Your task to perform on an android device: Open settings Image 0: 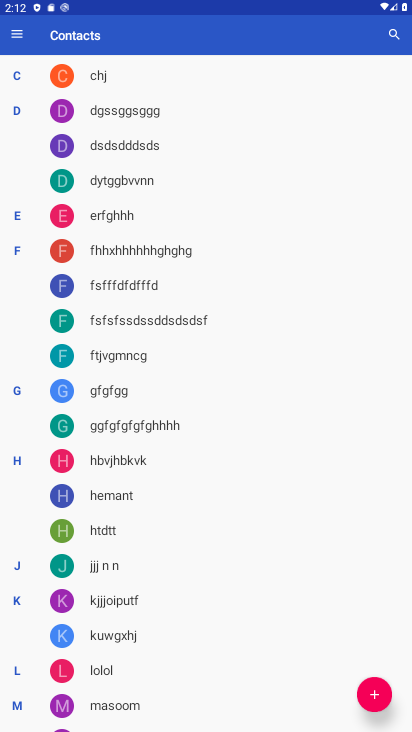
Step 0: press home button
Your task to perform on an android device: Open settings Image 1: 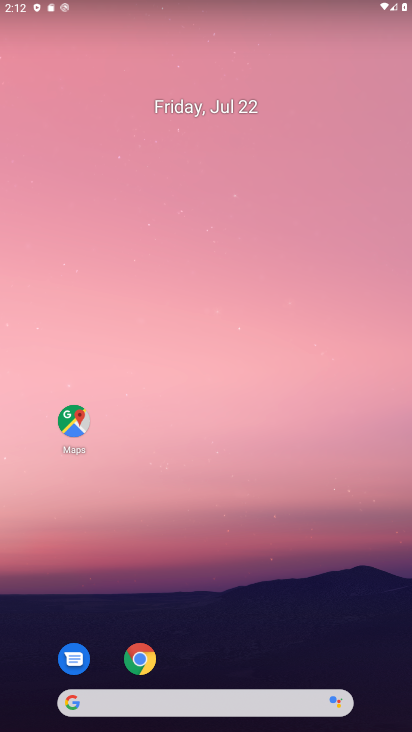
Step 1: drag from (269, 664) to (346, 328)
Your task to perform on an android device: Open settings Image 2: 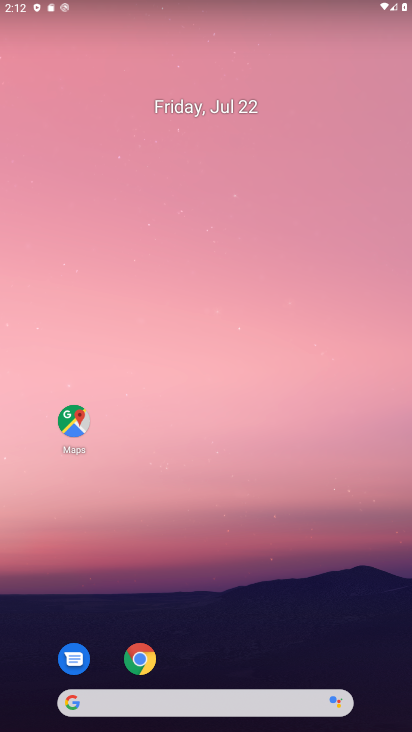
Step 2: drag from (284, 652) to (316, 179)
Your task to perform on an android device: Open settings Image 3: 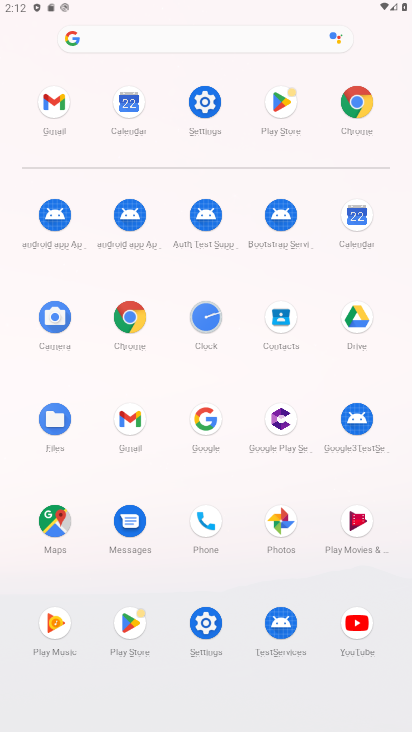
Step 3: click (217, 114)
Your task to perform on an android device: Open settings Image 4: 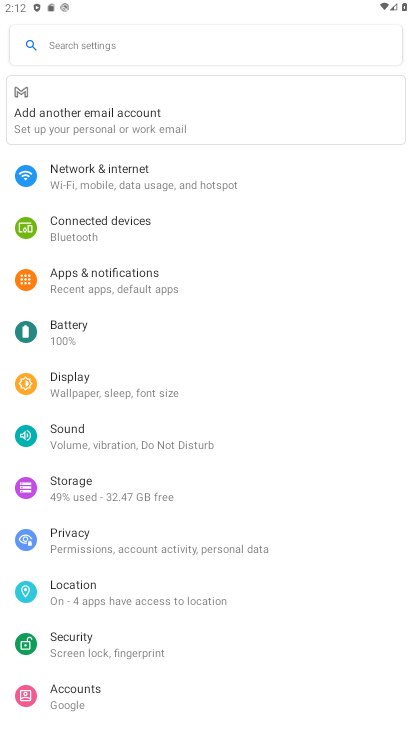
Step 4: task complete